Your task to perform on an android device: allow notifications from all sites in the chrome app Image 0: 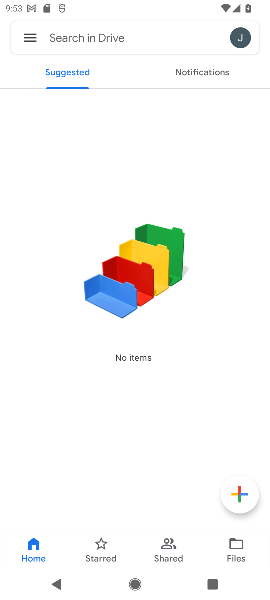
Step 0: press home button
Your task to perform on an android device: allow notifications from all sites in the chrome app Image 1: 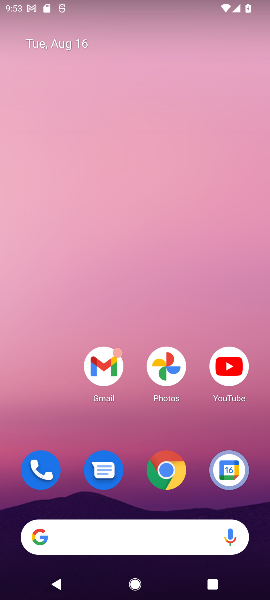
Step 1: click (168, 469)
Your task to perform on an android device: allow notifications from all sites in the chrome app Image 2: 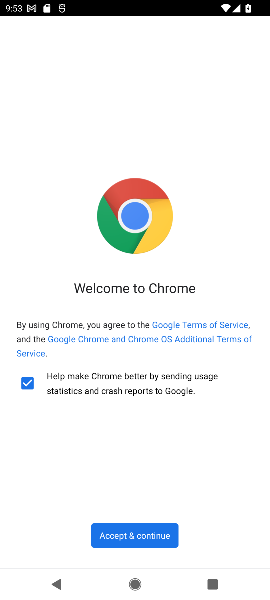
Step 2: click (148, 533)
Your task to perform on an android device: allow notifications from all sites in the chrome app Image 3: 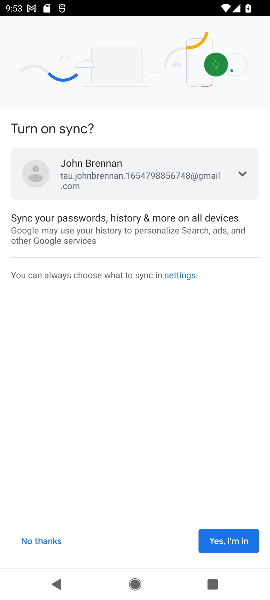
Step 3: click (221, 536)
Your task to perform on an android device: allow notifications from all sites in the chrome app Image 4: 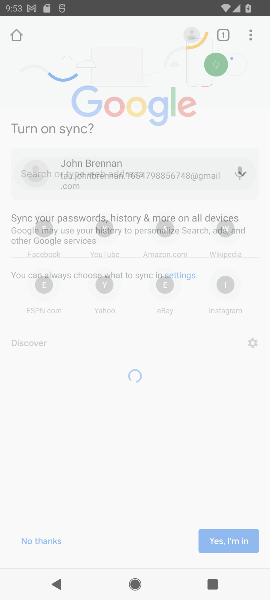
Step 4: click (221, 536)
Your task to perform on an android device: allow notifications from all sites in the chrome app Image 5: 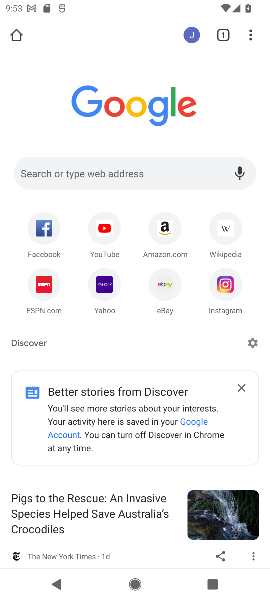
Step 5: click (250, 33)
Your task to perform on an android device: allow notifications from all sites in the chrome app Image 6: 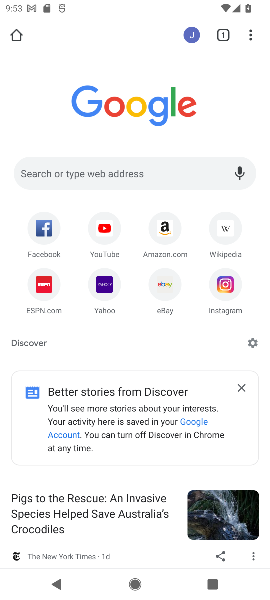
Step 6: click (250, 33)
Your task to perform on an android device: allow notifications from all sites in the chrome app Image 7: 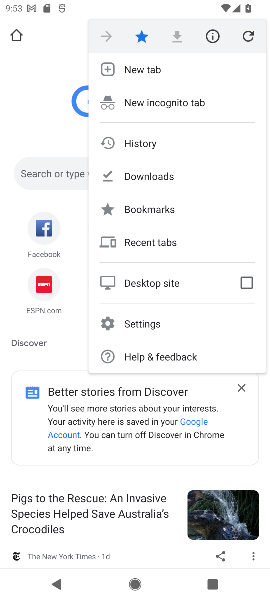
Step 7: click (149, 319)
Your task to perform on an android device: allow notifications from all sites in the chrome app Image 8: 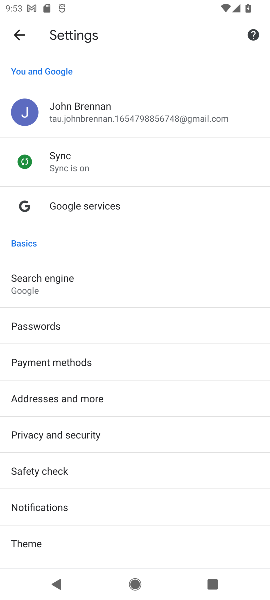
Step 8: click (112, 496)
Your task to perform on an android device: allow notifications from all sites in the chrome app Image 9: 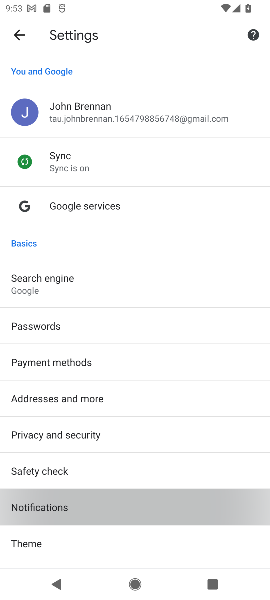
Step 9: click (112, 496)
Your task to perform on an android device: allow notifications from all sites in the chrome app Image 10: 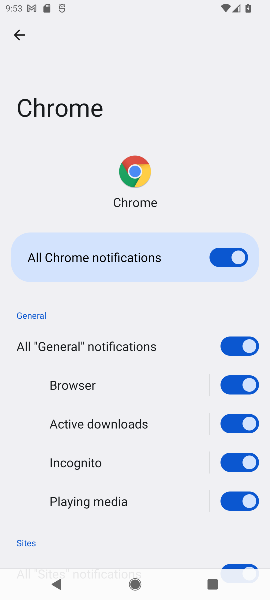
Step 10: task complete